Your task to perform on an android device: Open maps Image 0: 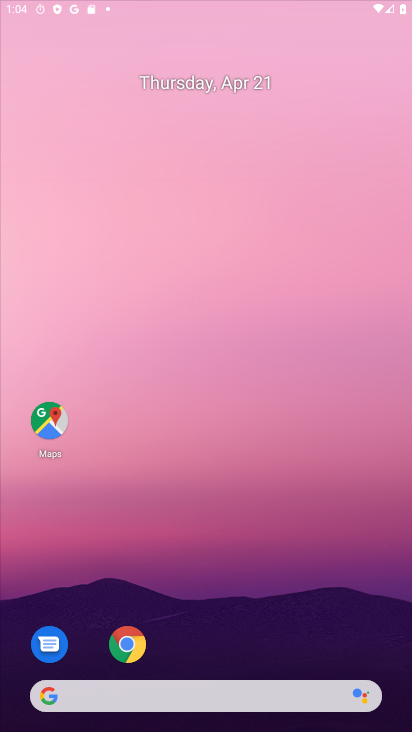
Step 0: drag from (311, 619) to (410, 525)
Your task to perform on an android device: Open maps Image 1: 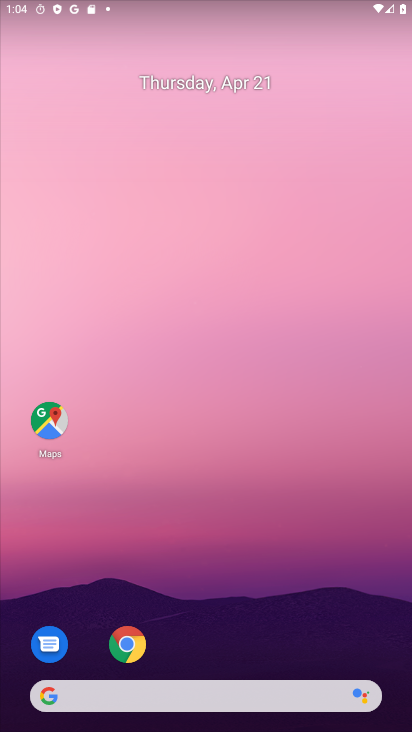
Step 1: click (50, 425)
Your task to perform on an android device: Open maps Image 2: 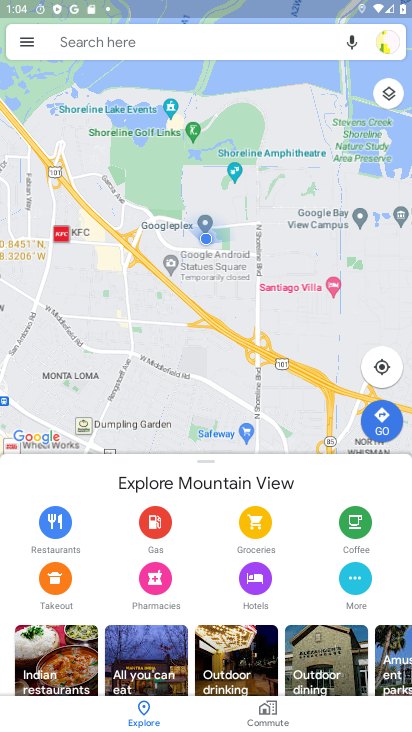
Step 2: task complete